Your task to perform on an android device: turn notification dots on Image 0: 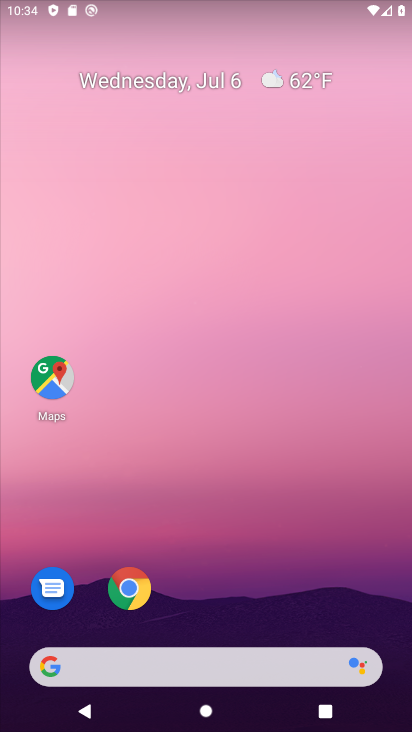
Step 0: drag from (376, 621) to (325, 54)
Your task to perform on an android device: turn notification dots on Image 1: 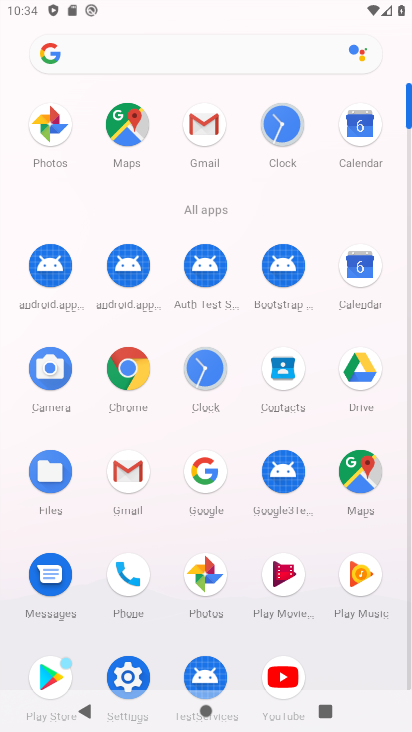
Step 1: click (126, 671)
Your task to perform on an android device: turn notification dots on Image 2: 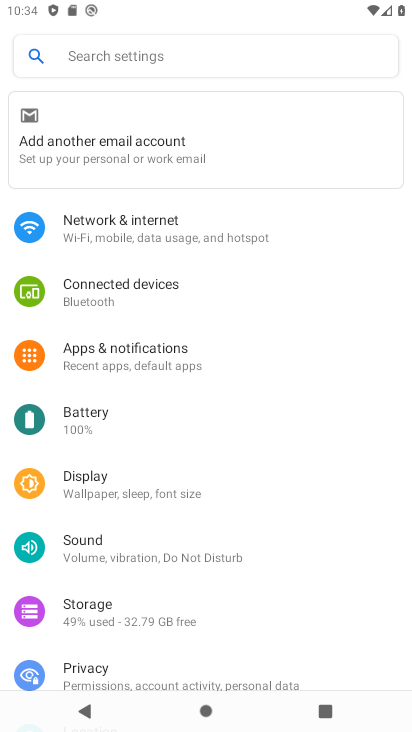
Step 2: click (102, 352)
Your task to perform on an android device: turn notification dots on Image 3: 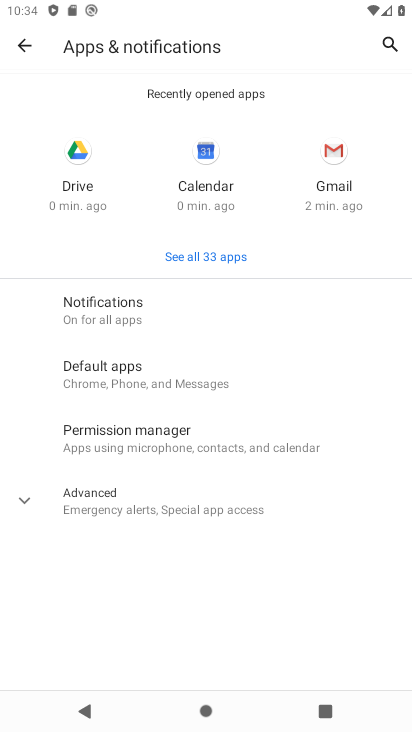
Step 3: click (99, 300)
Your task to perform on an android device: turn notification dots on Image 4: 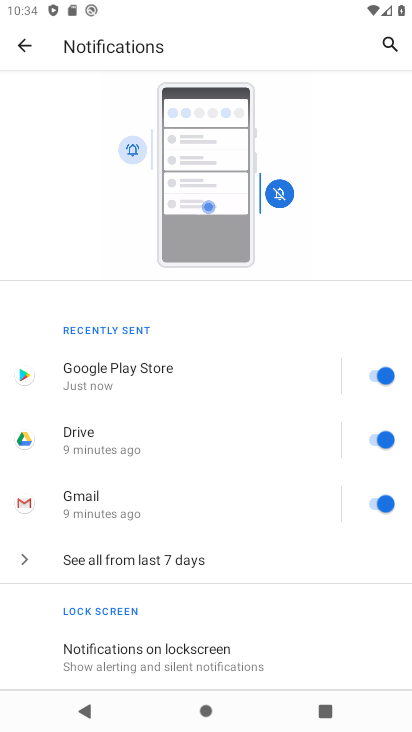
Step 4: drag from (314, 615) to (321, 255)
Your task to perform on an android device: turn notification dots on Image 5: 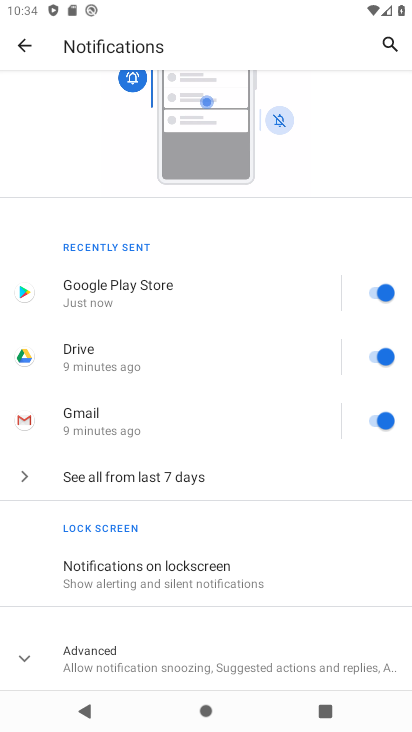
Step 5: click (73, 645)
Your task to perform on an android device: turn notification dots on Image 6: 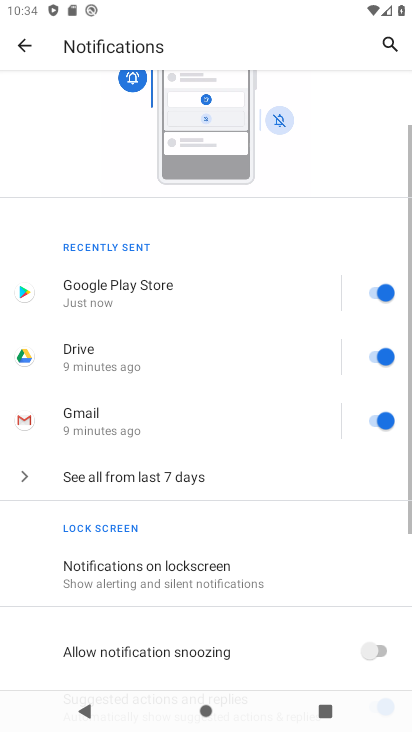
Step 6: task complete